Your task to perform on an android device: Open Google Image 0: 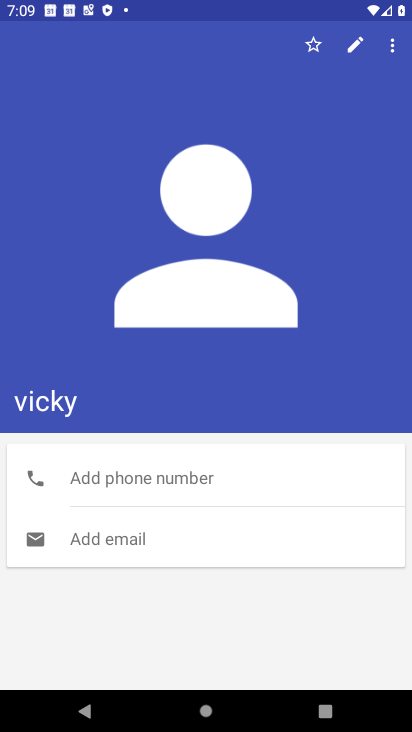
Step 0: press home button
Your task to perform on an android device: Open Google Image 1: 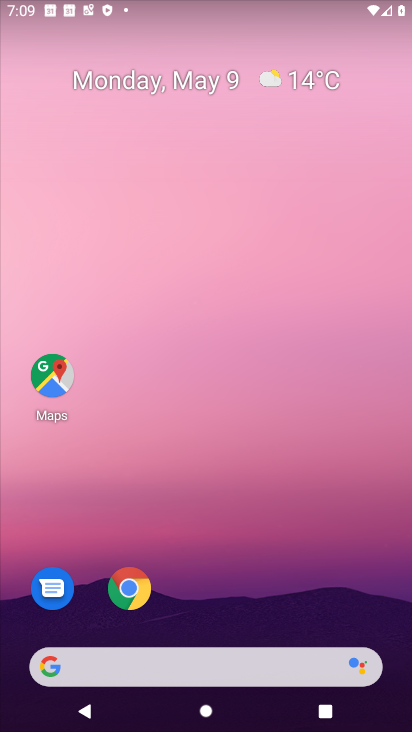
Step 1: drag from (343, 604) to (251, 39)
Your task to perform on an android device: Open Google Image 2: 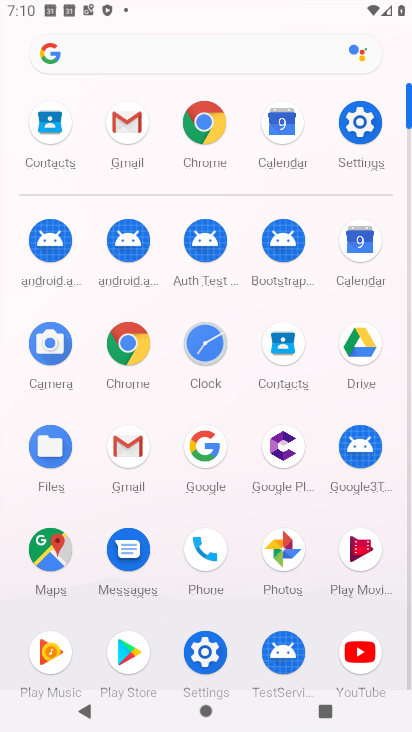
Step 2: click (193, 442)
Your task to perform on an android device: Open Google Image 3: 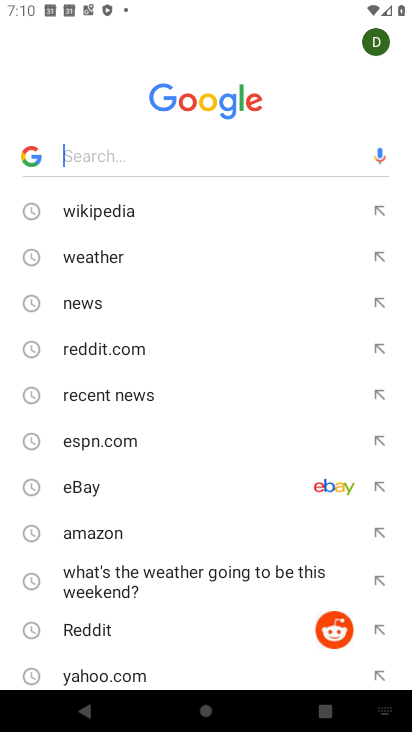
Step 3: task complete